Your task to perform on an android device: Open Android settings Image 0: 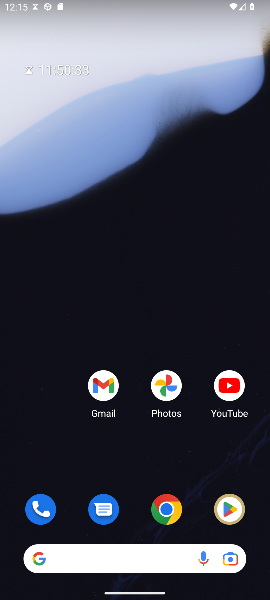
Step 0: drag from (152, 527) to (251, 131)
Your task to perform on an android device: Open Android settings Image 1: 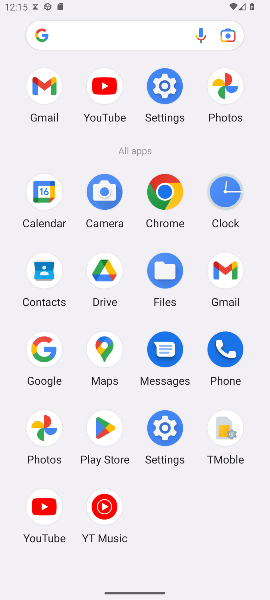
Step 1: click (163, 93)
Your task to perform on an android device: Open Android settings Image 2: 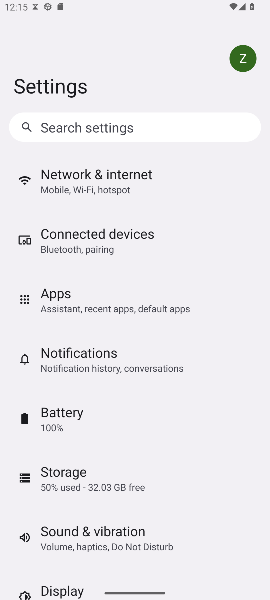
Step 2: task complete